Your task to perform on an android device: turn off translation in the chrome app Image 0: 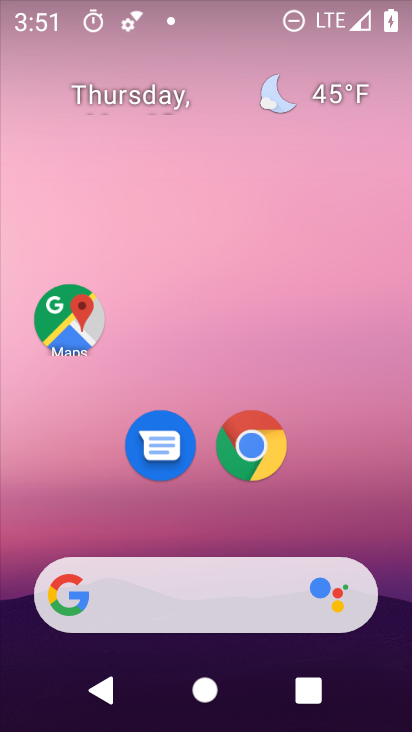
Step 0: click (252, 442)
Your task to perform on an android device: turn off translation in the chrome app Image 1: 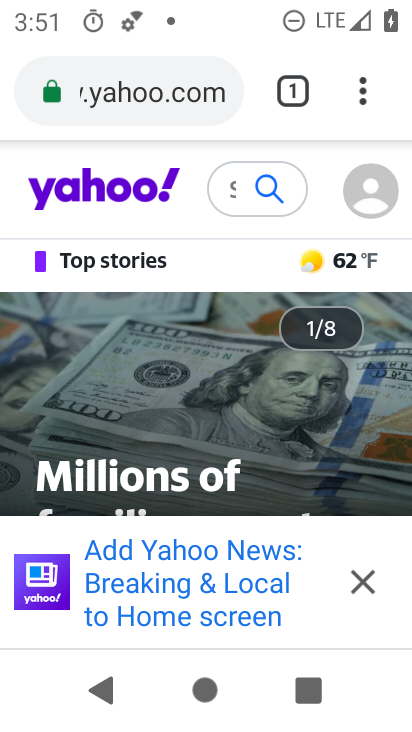
Step 1: click (364, 92)
Your task to perform on an android device: turn off translation in the chrome app Image 2: 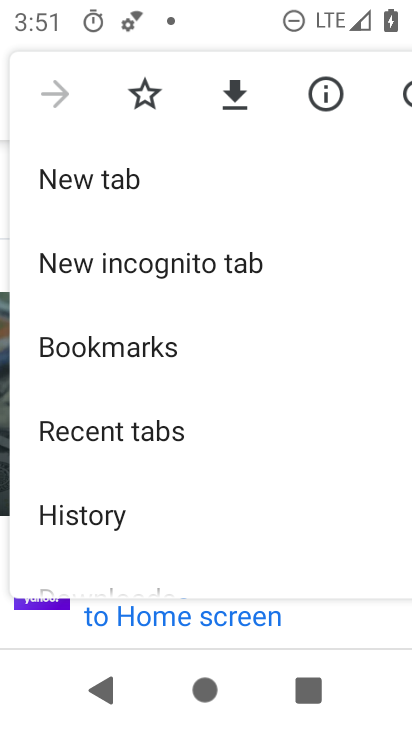
Step 2: drag from (197, 479) to (256, 349)
Your task to perform on an android device: turn off translation in the chrome app Image 3: 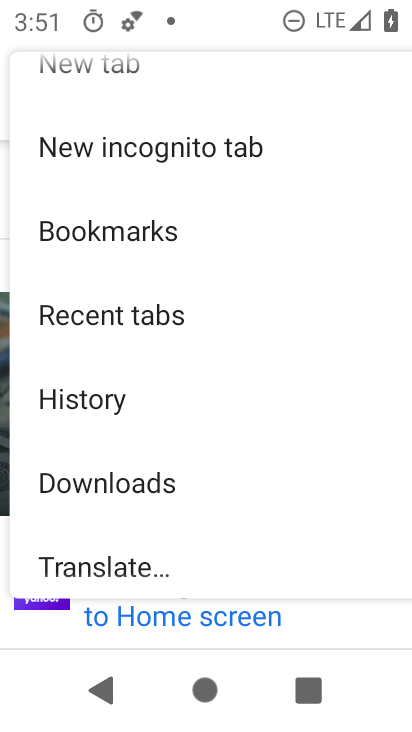
Step 3: drag from (205, 433) to (246, 350)
Your task to perform on an android device: turn off translation in the chrome app Image 4: 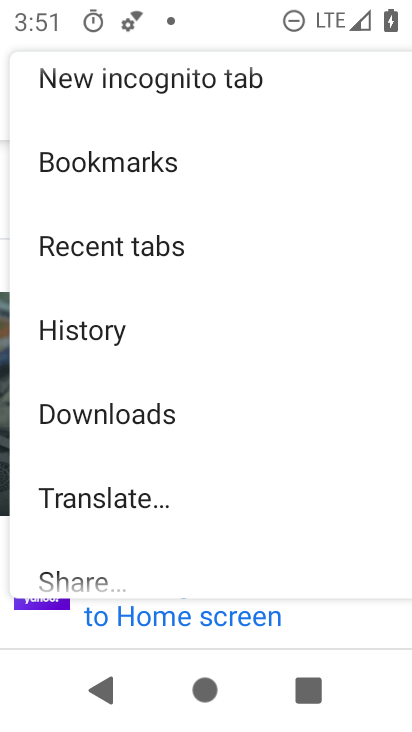
Step 4: drag from (219, 410) to (234, 345)
Your task to perform on an android device: turn off translation in the chrome app Image 5: 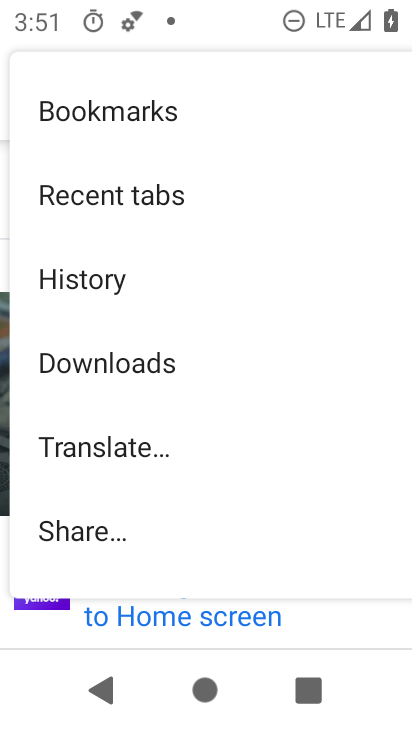
Step 5: drag from (192, 488) to (243, 322)
Your task to perform on an android device: turn off translation in the chrome app Image 6: 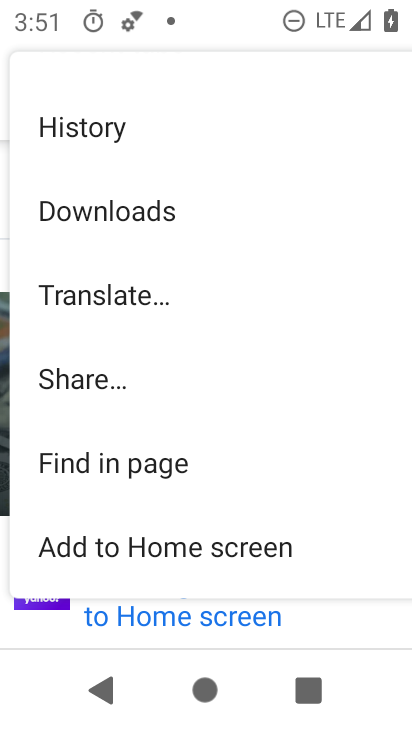
Step 6: drag from (206, 394) to (221, 296)
Your task to perform on an android device: turn off translation in the chrome app Image 7: 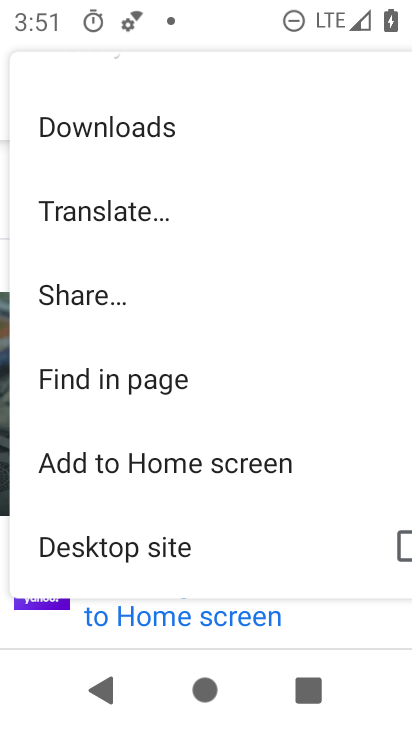
Step 7: drag from (174, 517) to (250, 338)
Your task to perform on an android device: turn off translation in the chrome app Image 8: 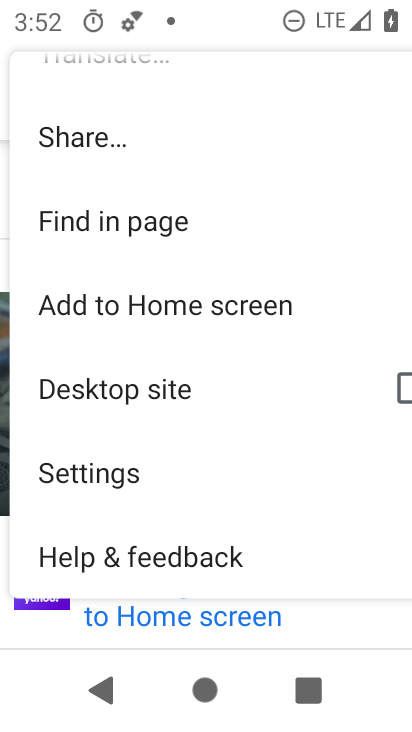
Step 8: click (105, 475)
Your task to perform on an android device: turn off translation in the chrome app Image 9: 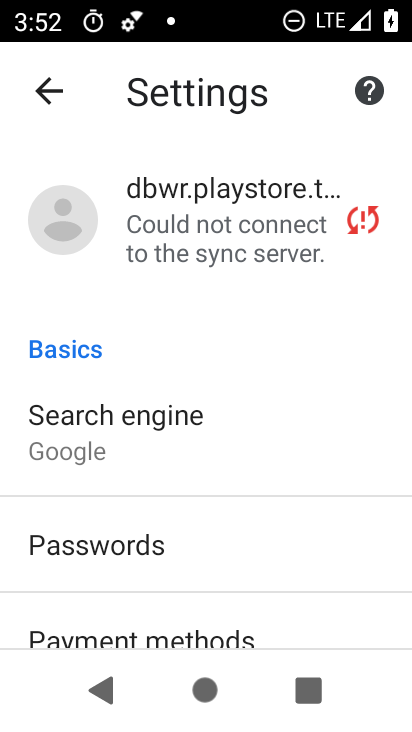
Step 9: drag from (194, 556) to (261, 402)
Your task to perform on an android device: turn off translation in the chrome app Image 10: 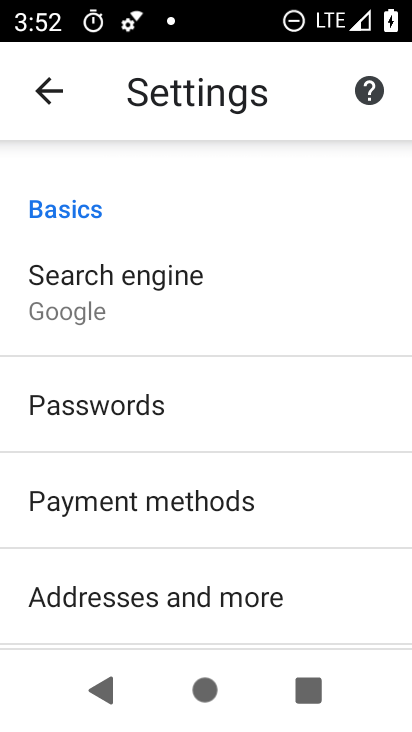
Step 10: drag from (188, 563) to (291, 417)
Your task to perform on an android device: turn off translation in the chrome app Image 11: 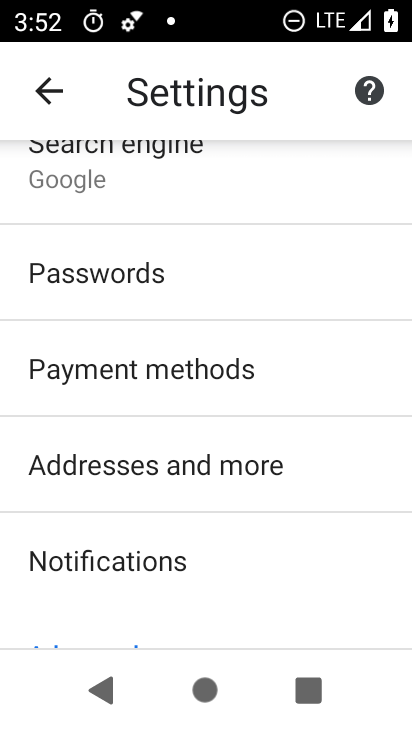
Step 11: drag from (217, 541) to (271, 416)
Your task to perform on an android device: turn off translation in the chrome app Image 12: 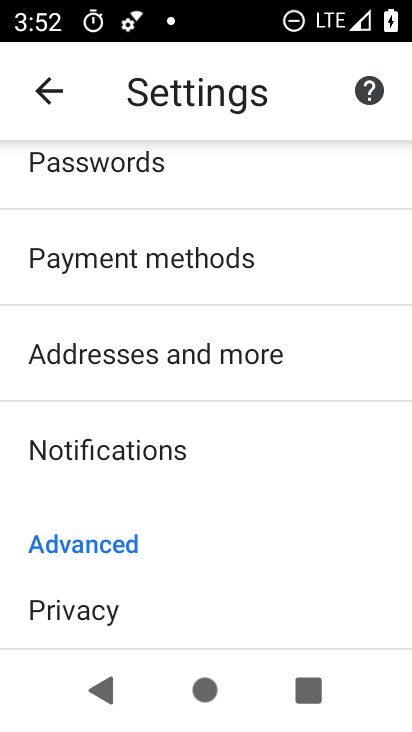
Step 12: drag from (196, 531) to (270, 400)
Your task to perform on an android device: turn off translation in the chrome app Image 13: 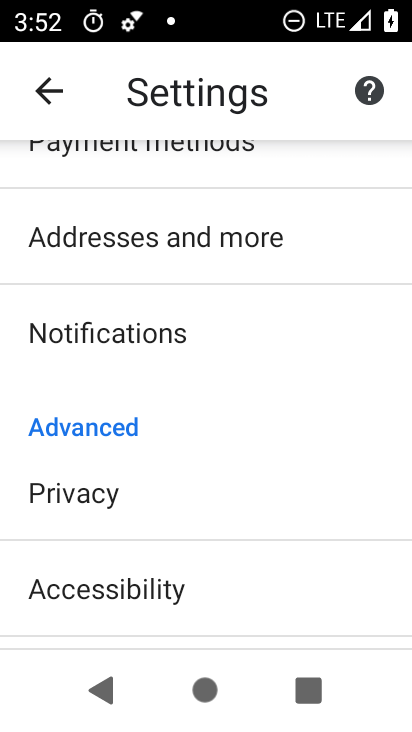
Step 13: drag from (153, 515) to (211, 385)
Your task to perform on an android device: turn off translation in the chrome app Image 14: 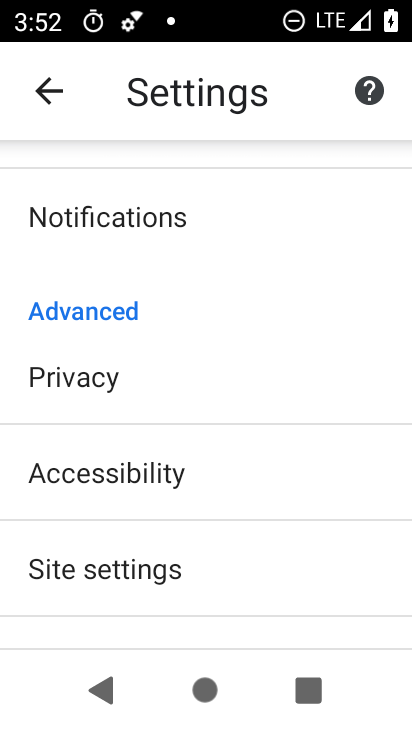
Step 14: drag from (214, 576) to (275, 425)
Your task to perform on an android device: turn off translation in the chrome app Image 15: 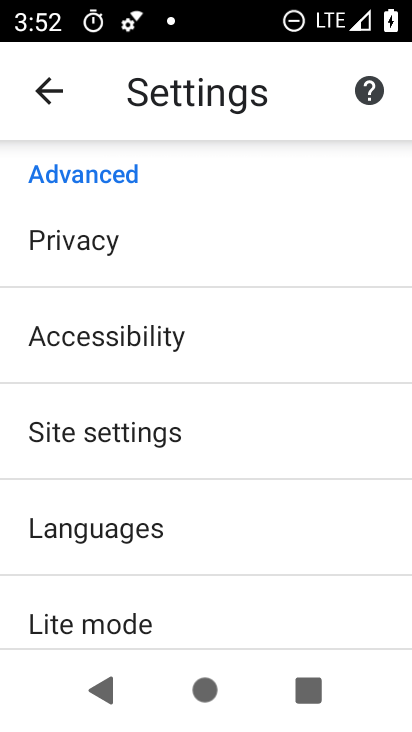
Step 15: drag from (204, 544) to (240, 415)
Your task to perform on an android device: turn off translation in the chrome app Image 16: 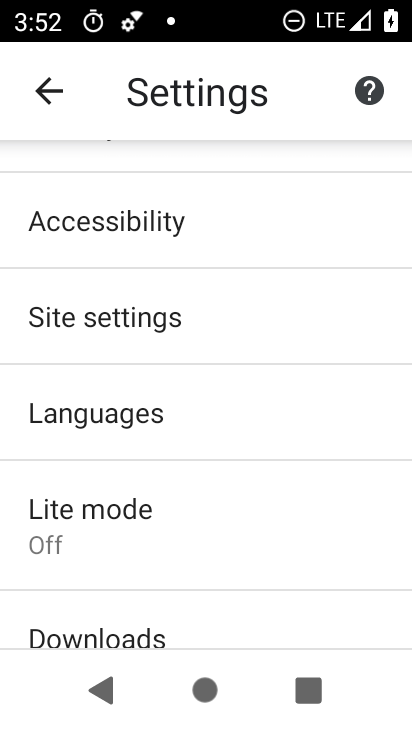
Step 16: click (162, 411)
Your task to perform on an android device: turn off translation in the chrome app Image 17: 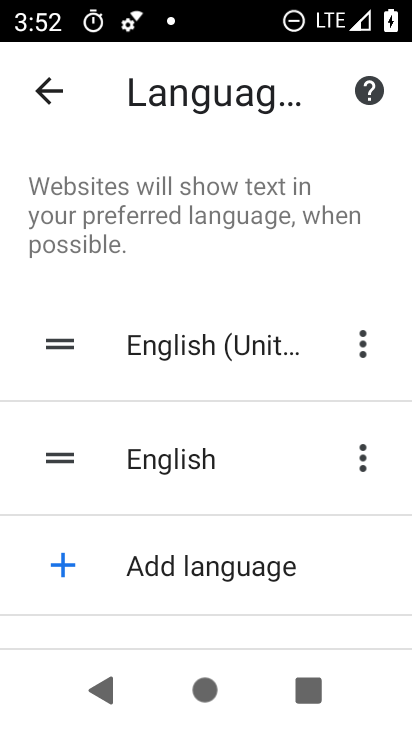
Step 17: drag from (281, 552) to (308, 343)
Your task to perform on an android device: turn off translation in the chrome app Image 18: 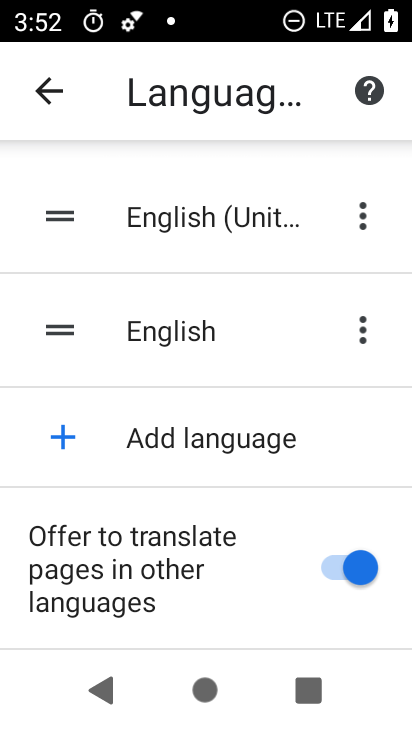
Step 18: click (379, 566)
Your task to perform on an android device: turn off translation in the chrome app Image 19: 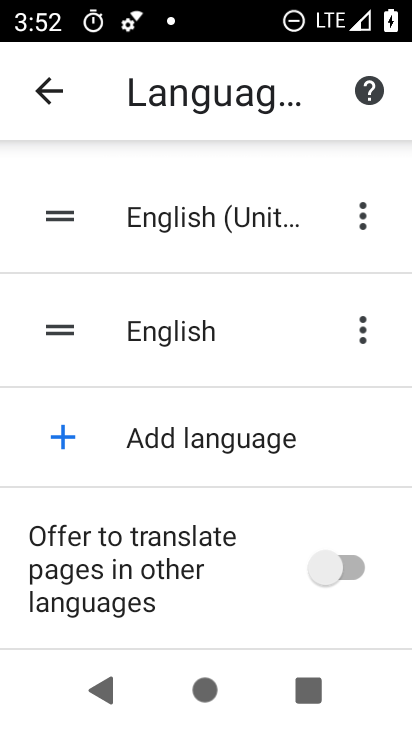
Step 19: task complete